Your task to perform on an android device: toggle improve location accuracy Image 0: 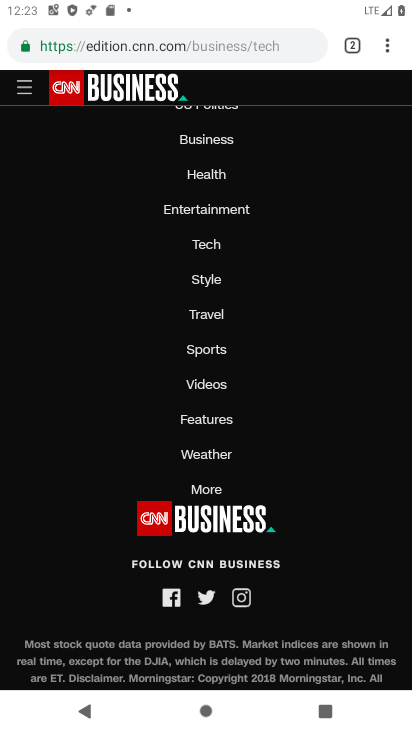
Step 0: click (387, 45)
Your task to perform on an android device: toggle improve location accuracy Image 1: 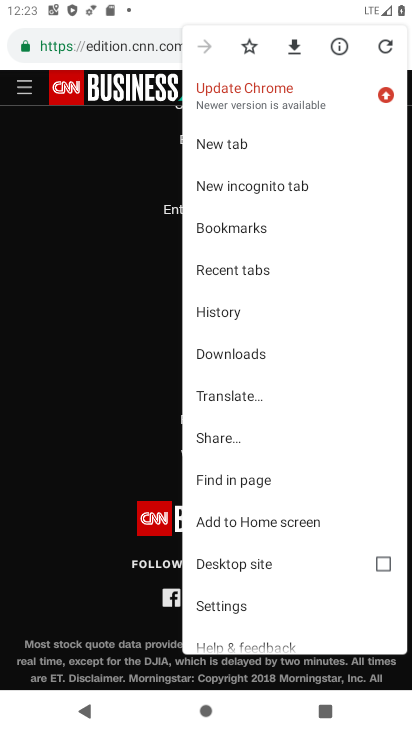
Step 1: click (249, 608)
Your task to perform on an android device: toggle improve location accuracy Image 2: 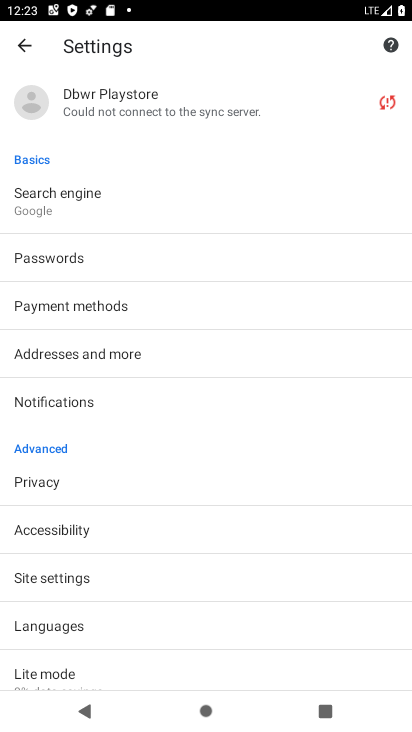
Step 2: press home button
Your task to perform on an android device: toggle improve location accuracy Image 3: 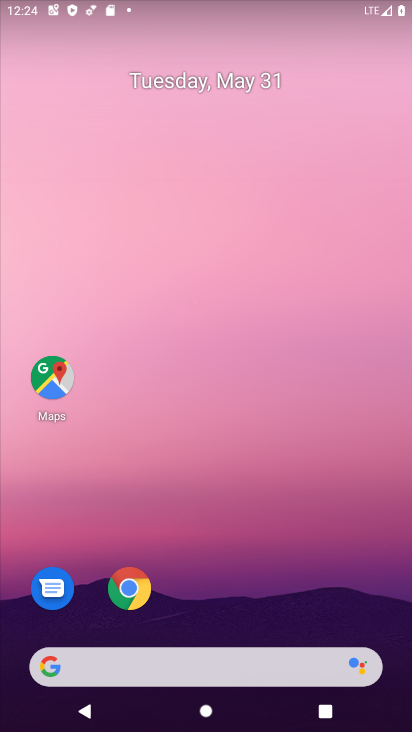
Step 3: drag from (217, 621) to (241, 210)
Your task to perform on an android device: toggle improve location accuracy Image 4: 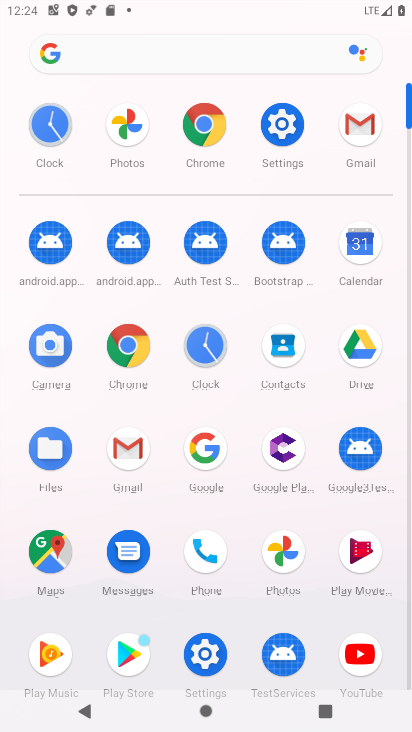
Step 4: click (281, 126)
Your task to perform on an android device: toggle improve location accuracy Image 5: 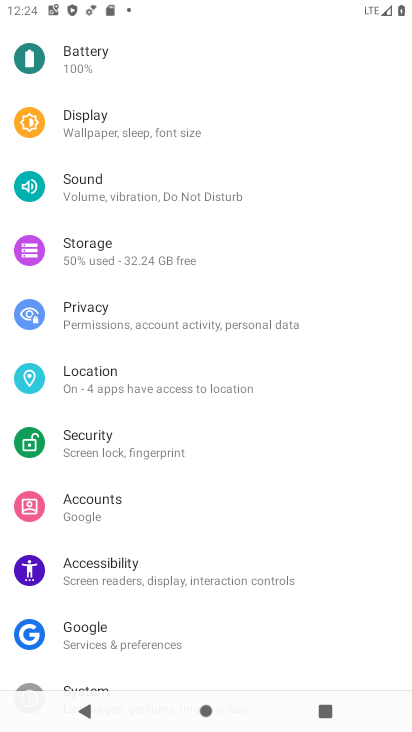
Step 5: click (135, 367)
Your task to perform on an android device: toggle improve location accuracy Image 6: 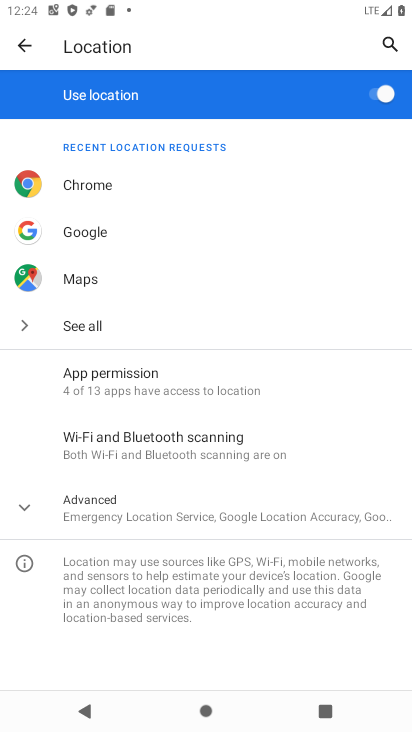
Step 6: click (62, 506)
Your task to perform on an android device: toggle improve location accuracy Image 7: 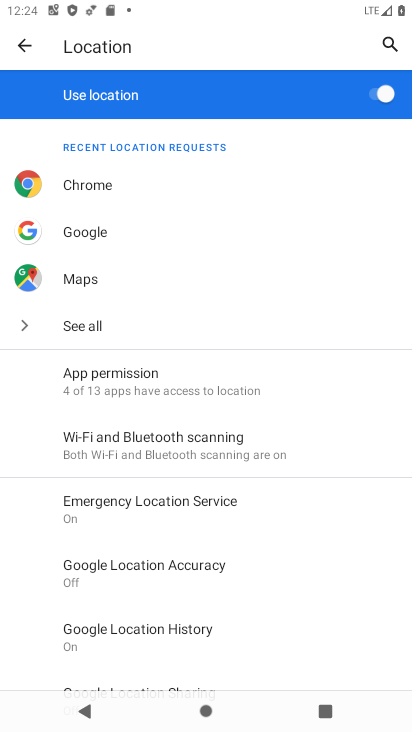
Step 7: click (232, 570)
Your task to perform on an android device: toggle improve location accuracy Image 8: 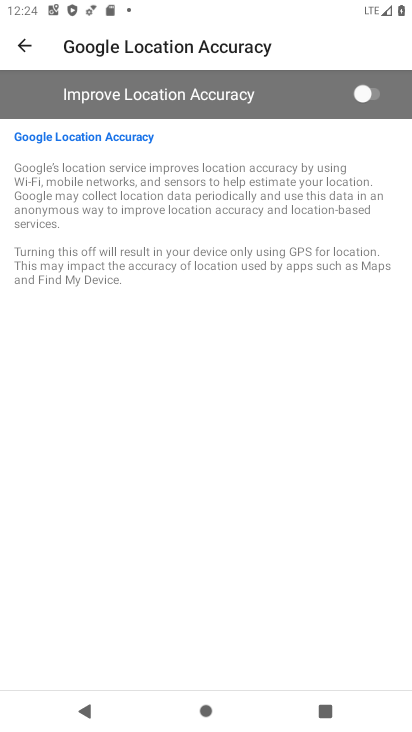
Step 8: click (380, 92)
Your task to perform on an android device: toggle improve location accuracy Image 9: 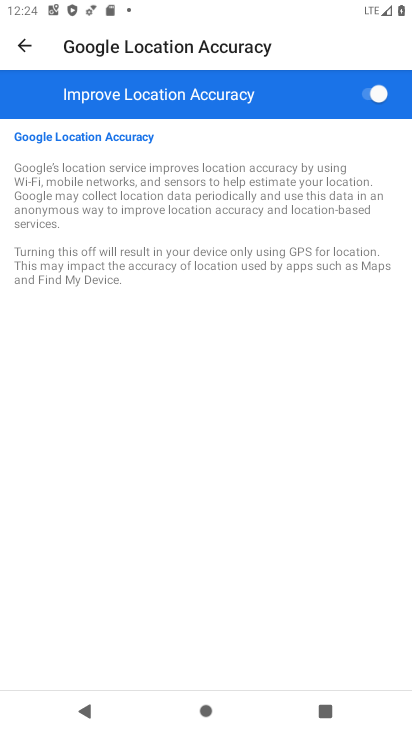
Step 9: task complete